Your task to perform on an android device: Open ESPN.com Image 0: 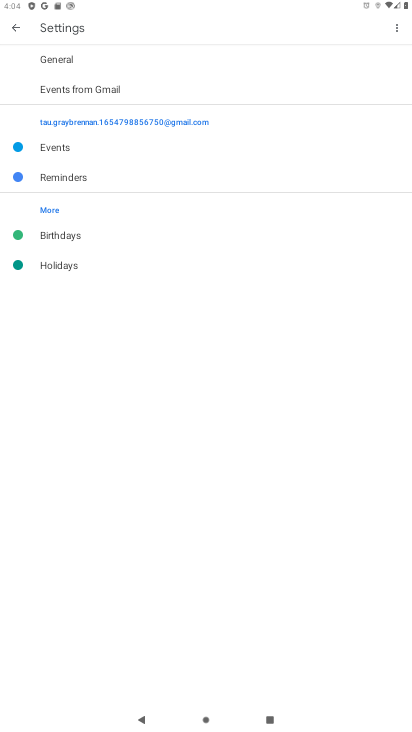
Step 0: press home button
Your task to perform on an android device: Open ESPN.com Image 1: 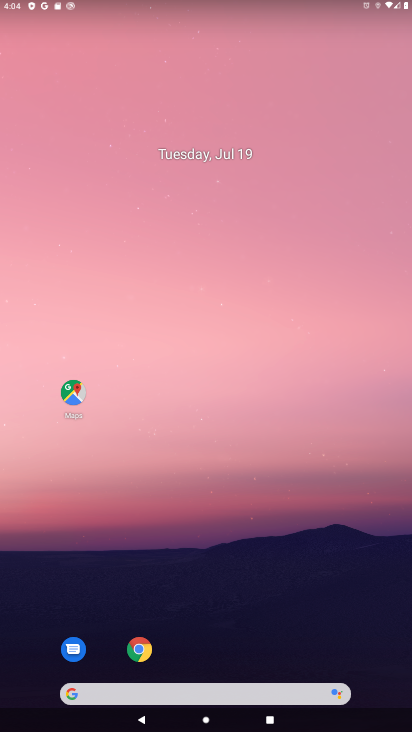
Step 1: drag from (350, 638) to (272, 66)
Your task to perform on an android device: Open ESPN.com Image 2: 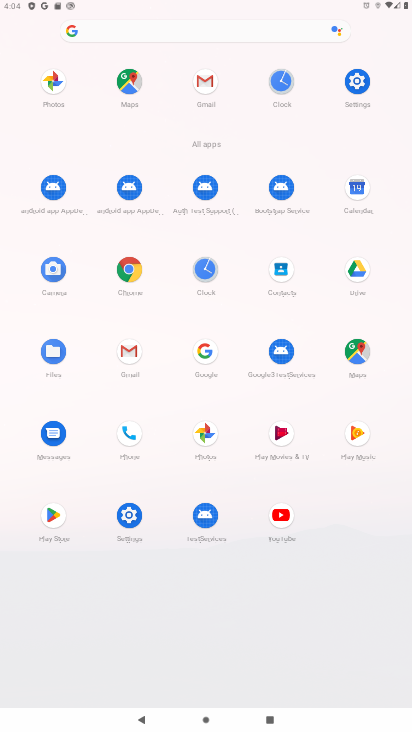
Step 2: click (126, 281)
Your task to perform on an android device: Open ESPN.com Image 3: 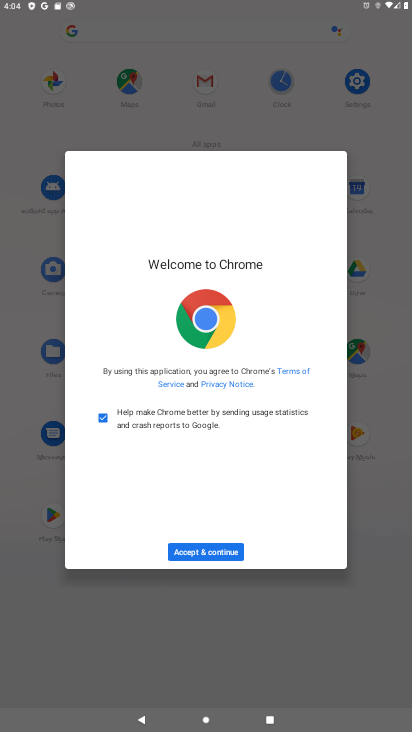
Step 3: click (214, 552)
Your task to perform on an android device: Open ESPN.com Image 4: 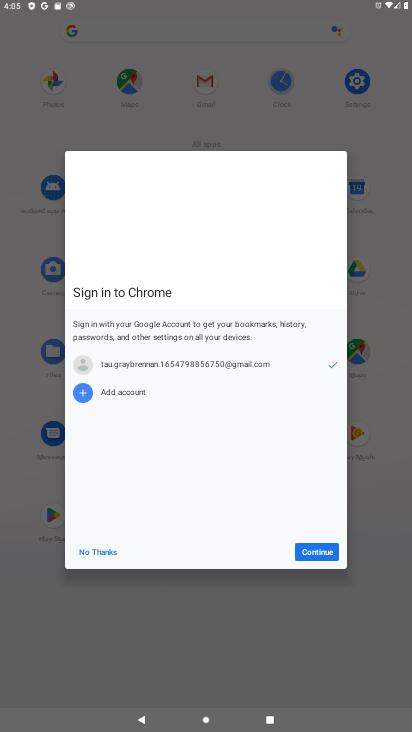
Step 4: click (316, 543)
Your task to perform on an android device: Open ESPN.com Image 5: 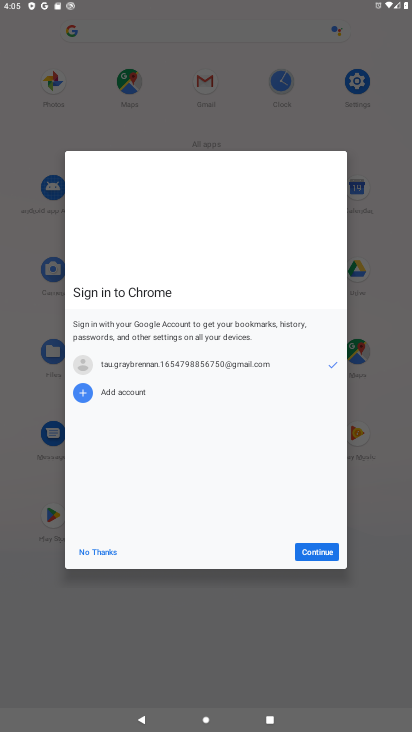
Step 5: click (334, 553)
Your task to perform on an android device: Open ESPN.com Image 6: 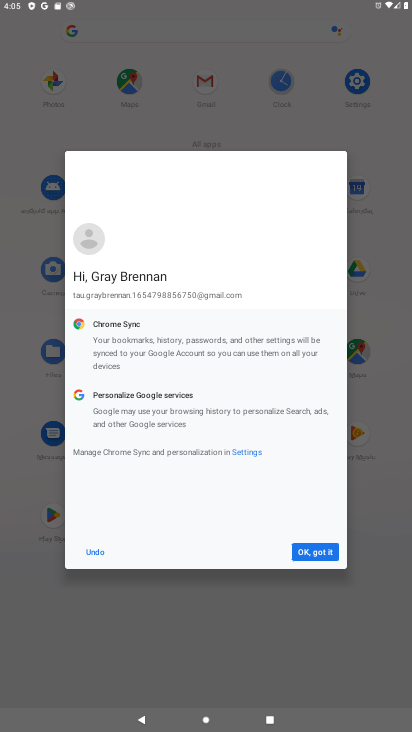
Step 6: click (325, 547)
Your task to perform on an android device: Open ESPN.com Image 7: 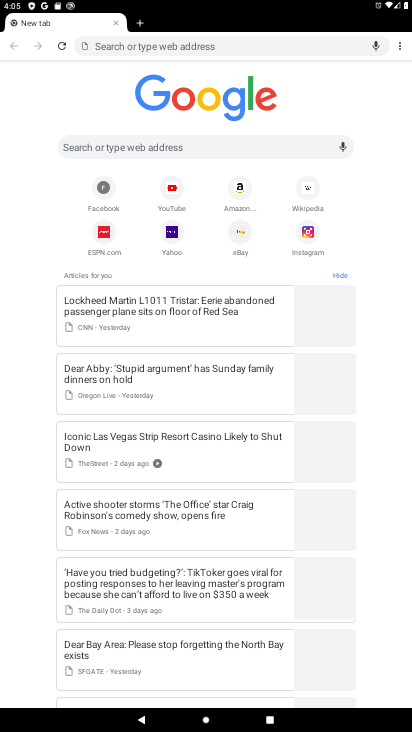
Step 7: click (108, 238)
Your task to perform on an android device: Open ESPN.com Image 8: 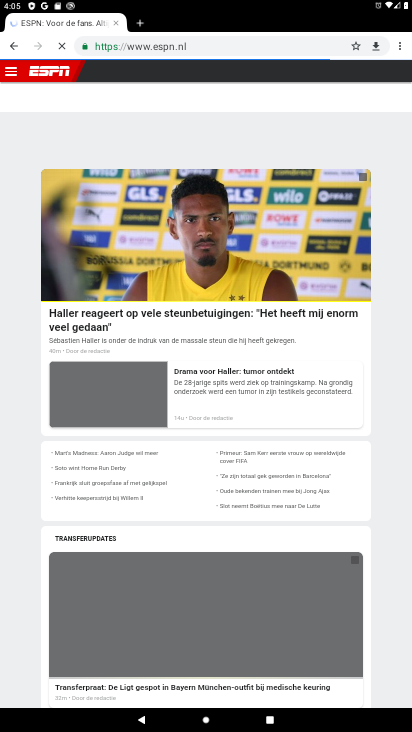
Step 8: task complete